Your task to perform on an android device: Add "macbook air" to the cart on ebay.com, then select checkout. Image 0: 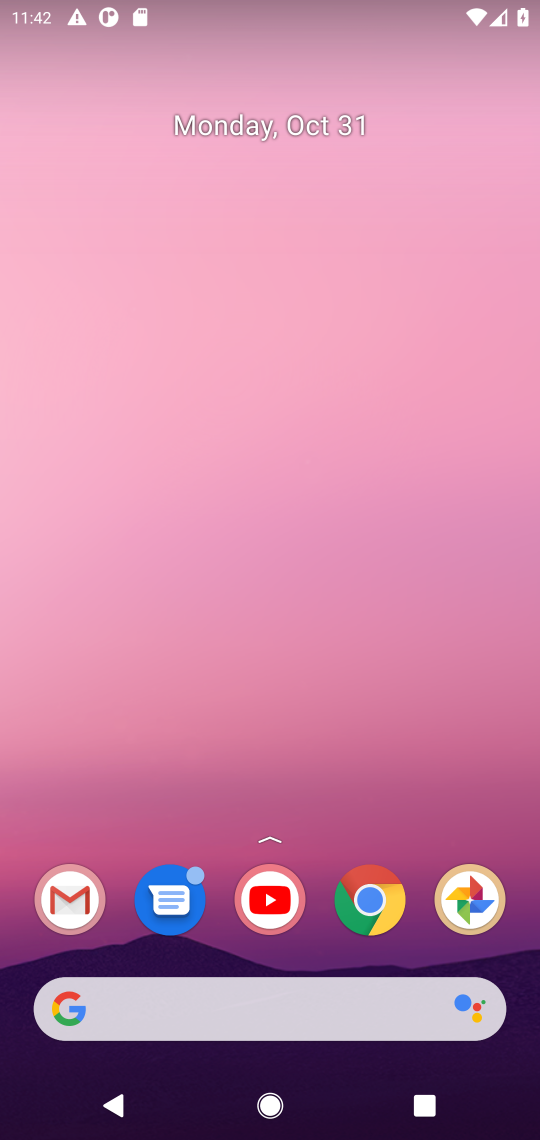
Step 0: click (369, 906)
Your task to perform on an android device: Add "macbook air" to the cart on ebay.com, then select checkout. Image 1: 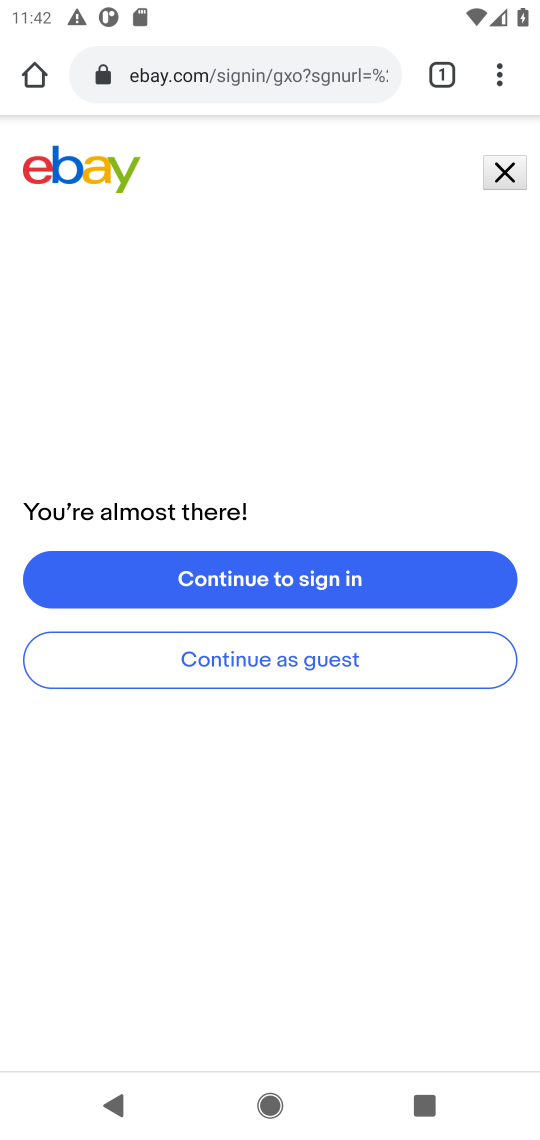
Step 1: click (172, 68)
Your task to perform on an android device: Add "macbook air" to the cart on ebay.com, then select checkout. Image 2: 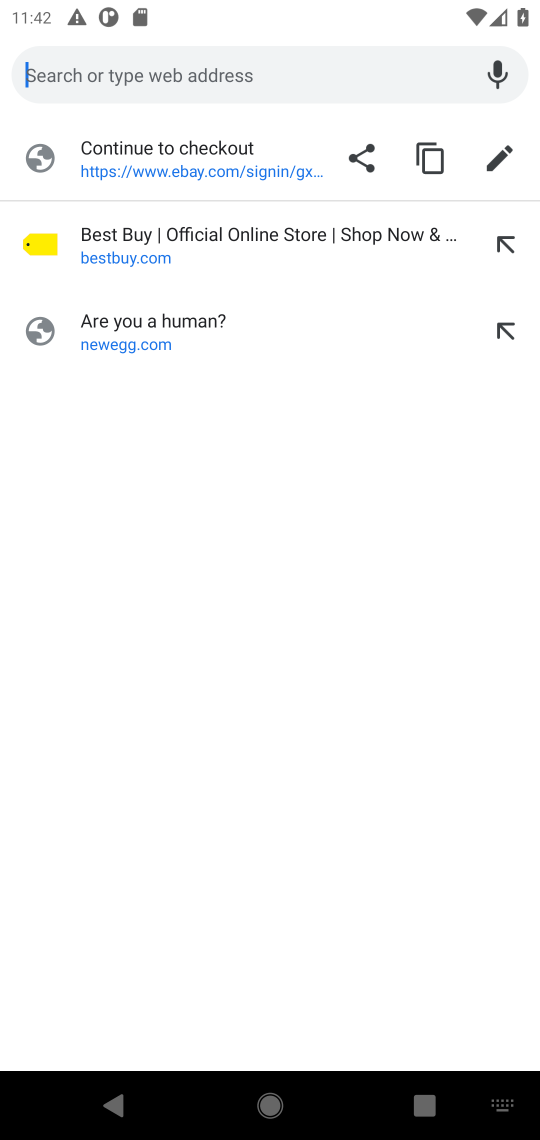
Step 2: type "ebay.com"
Your task to perform on an android device: Add "macbook air" to the cart on ebay.com, then select checkout. Image 3: 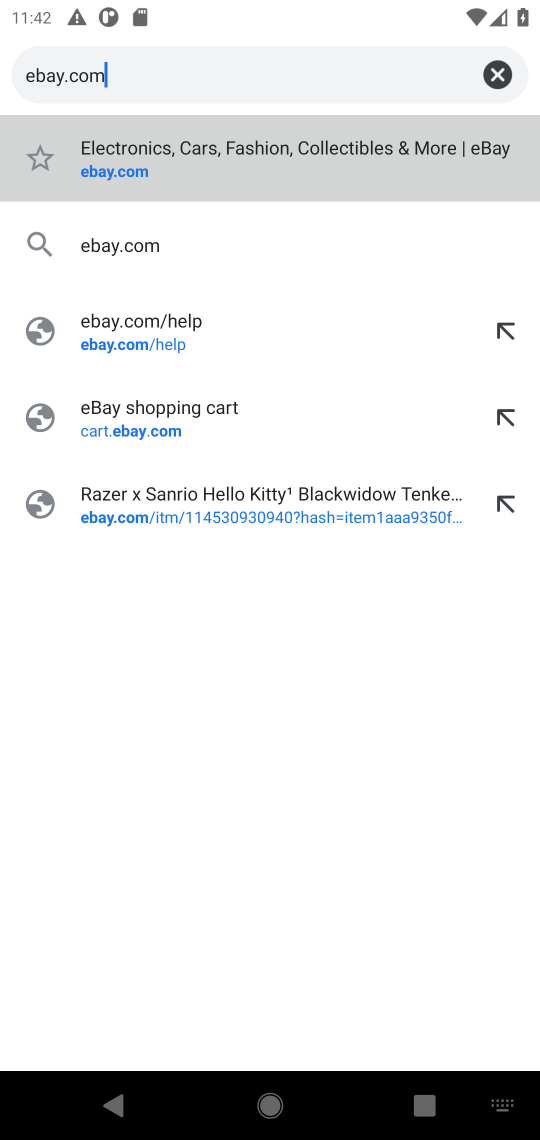
Step 3: press enter
Your task to perform on an android device: Add "macbook air" to the cart on ebay.com, then select checkout. Image 4: 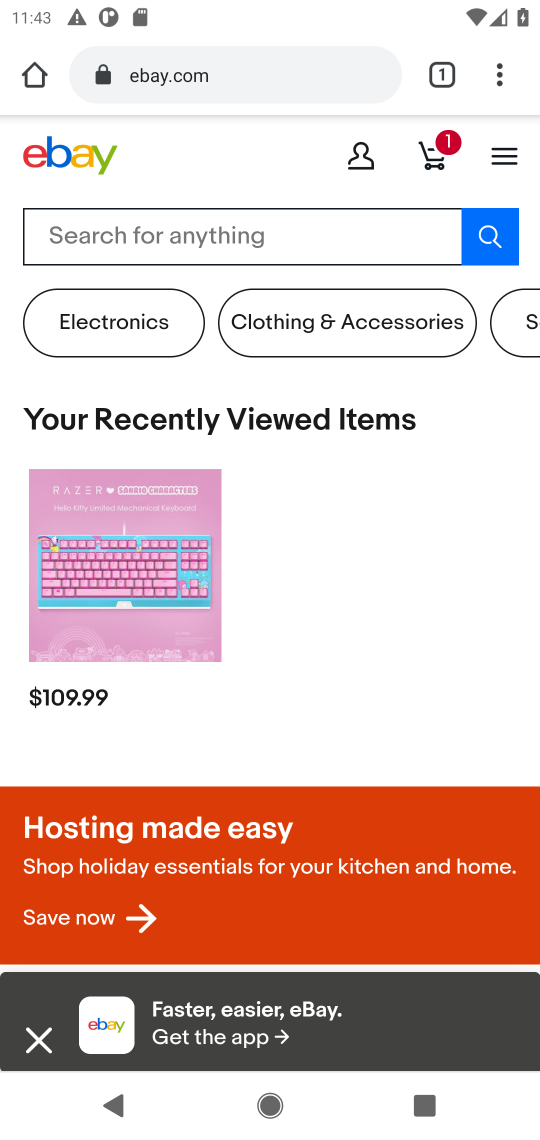
Step 4: click (272, 247)
Your task to perform on an android device: Add "macbook air" to the cart on ebay.com, then select checkout. Image 5: 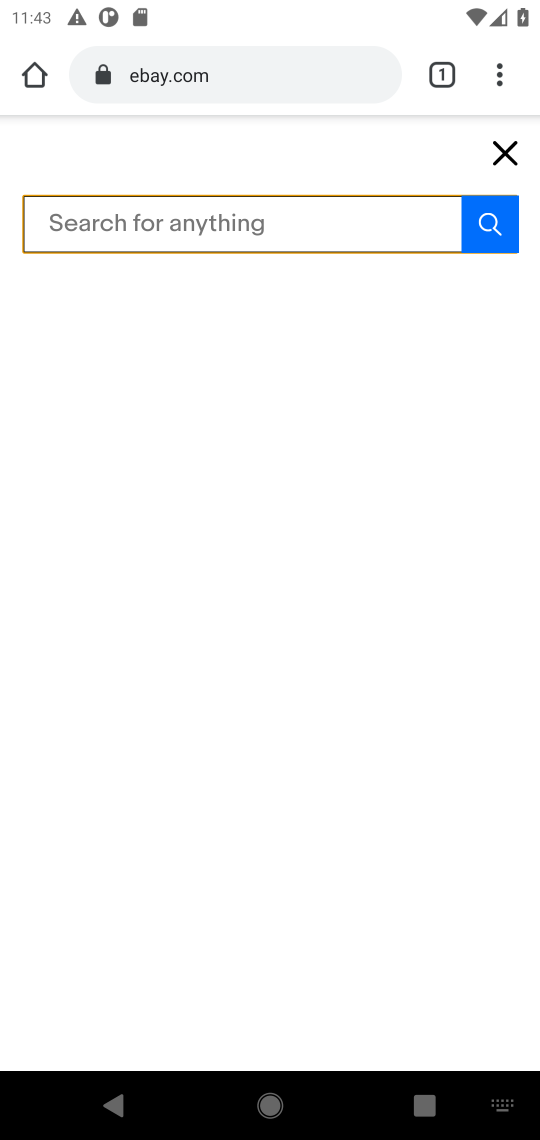
Step 5: type "macbook air"
Your task to perform on an android device: Add "macbook air" to the cart on ebay.com, then select checkout. Image 6: 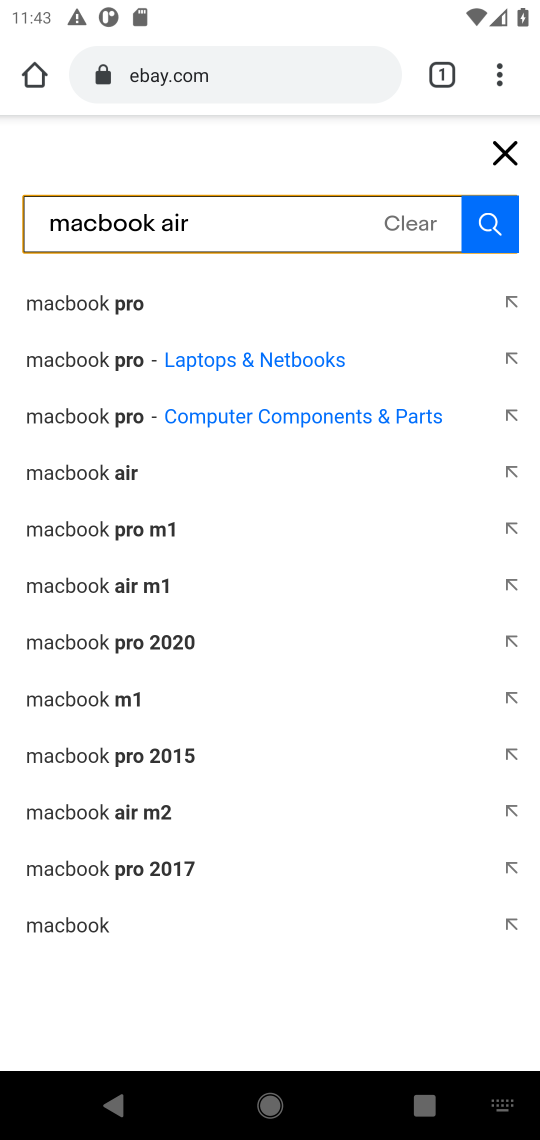
Step 6: press enter
Your task to perform on an android device: Add "macbook air" to the cart on ebay.com, then select checkout. Image 7: 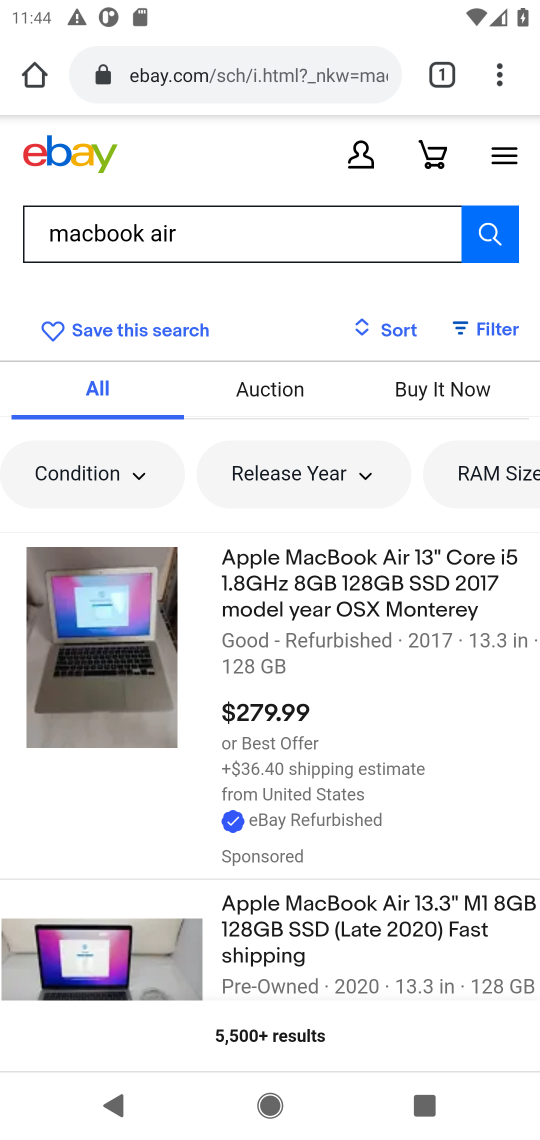
Step 7: click (293, 629)
Your task to perform on an android device: Add "macbook air" to the cart on ebay.com, then select checkout. Image 8: 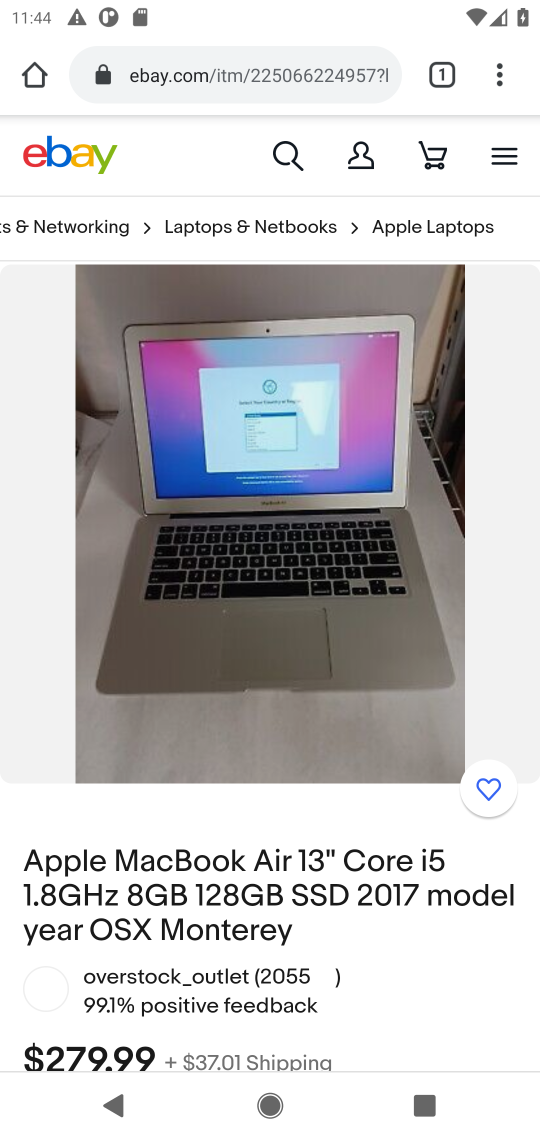
Step 8: drag from (355, 1012) to (322, 499)
Your task to perform on an android device: Add "macbook air" to the cart on ebay.com, then select checkout. Image 9: 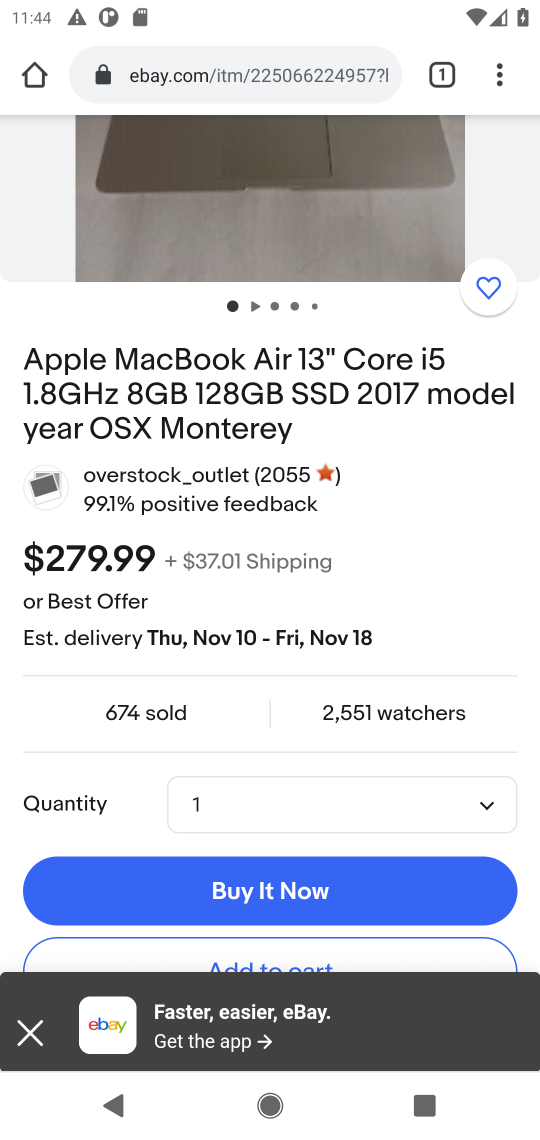
Step 9: click (254, 961)
Your task to perform on an android device: Add "macbook air" to the cart on ebay.com, then select checkout. Image 10: 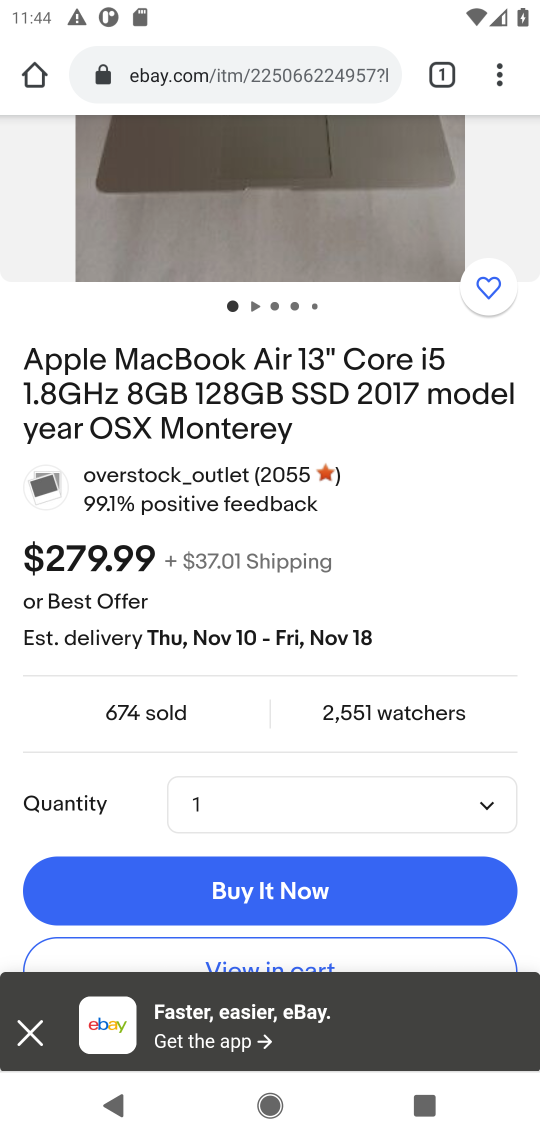
Step 10: click (254, 961)
Your task to perform on an android device: Add "macbook air" to the cart on ebay.com, then select checkout. Image 11: 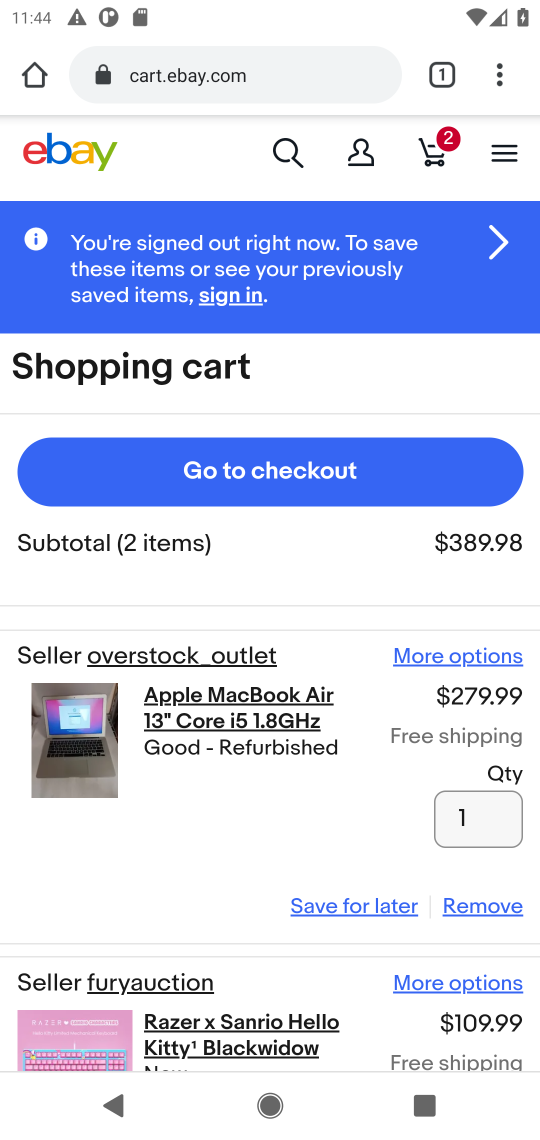
Step 11: click (272, 487)
Your task to perform on an android device: Add "macbook air" to the cart on ebay.com, then select checkout. Image 12: 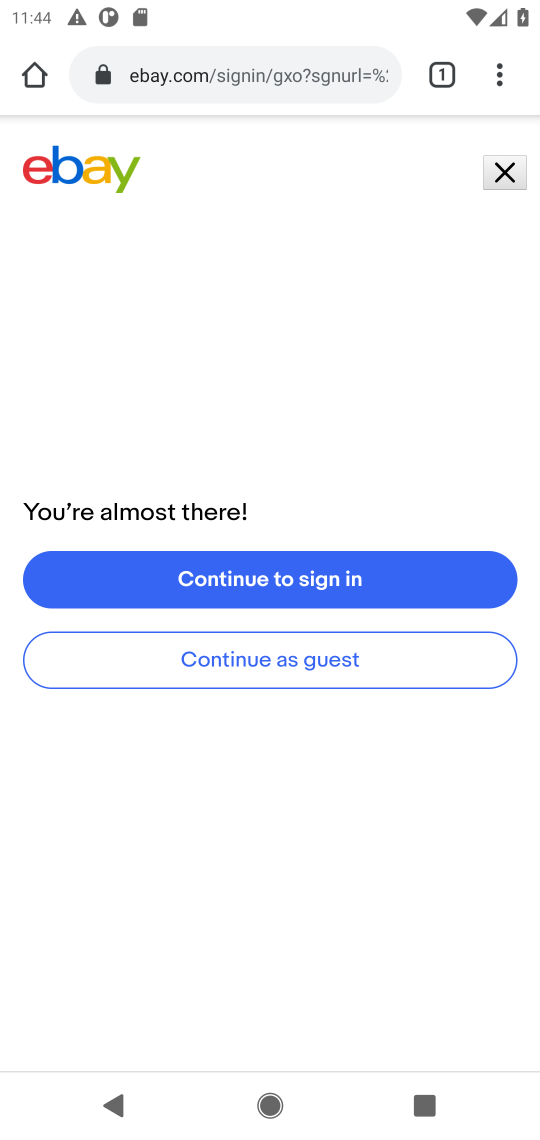
Step 12: click (312, 578)
Your task to perform on an android device: Add "macbook air" to the cart on ebay.com, then select checkout. Image 13: 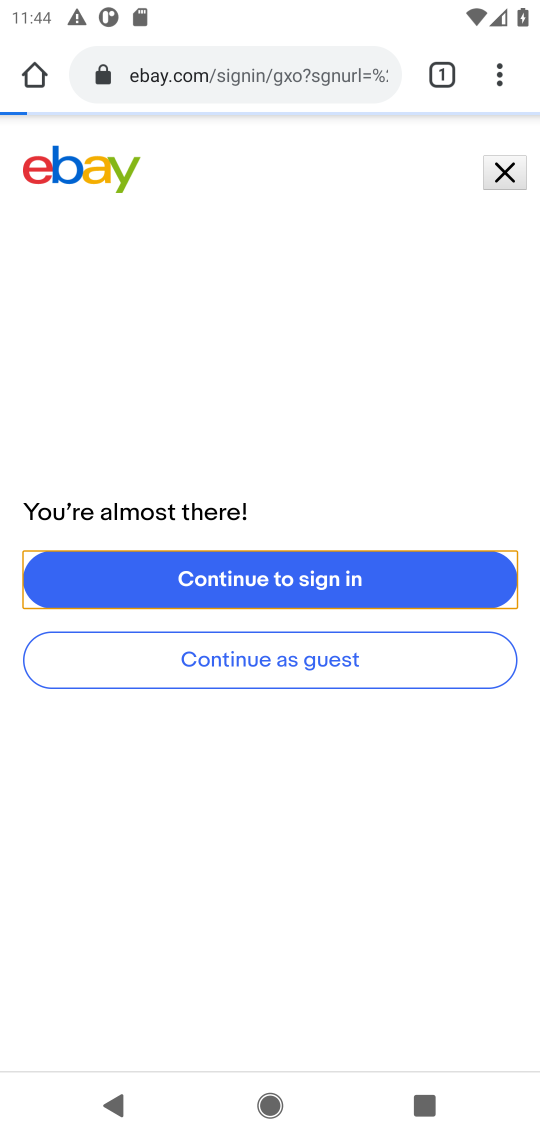
Step 13: task complete